Your task to perform on an android device: turn on location history Image 0: 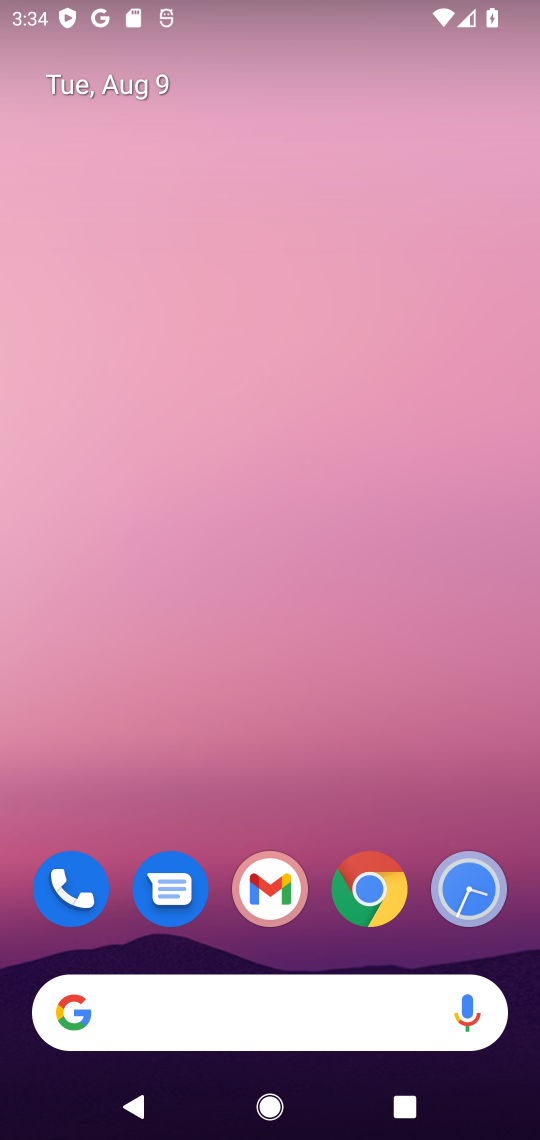
Step 0: drag from (289, 770) to (371, 0)
Your task to perform on an android device: turn on location history Image 1: 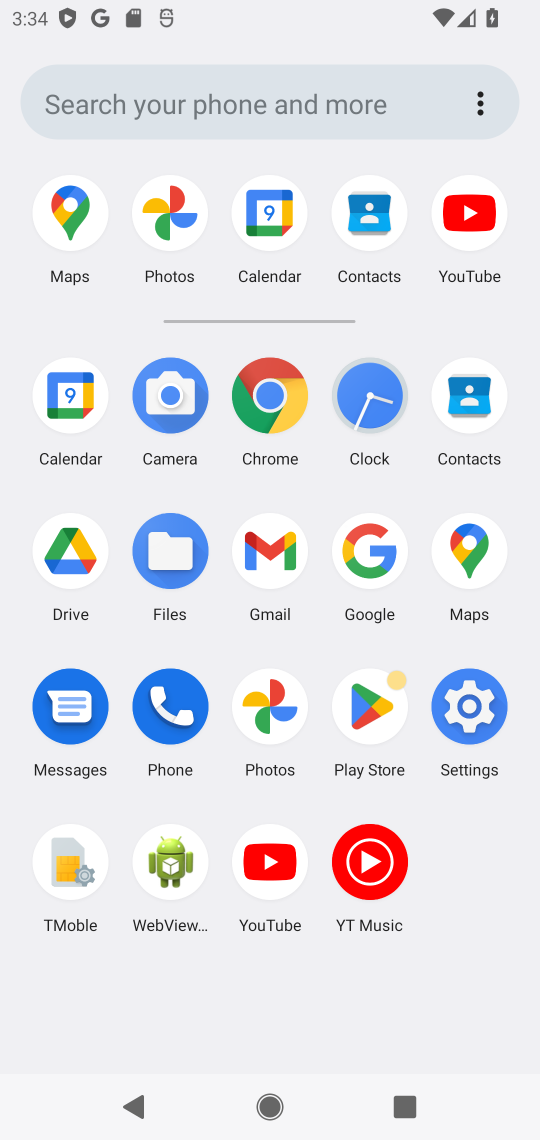
Step 1: click (465, 712)
Your task to perform on an android device: turn on location history Image 2: 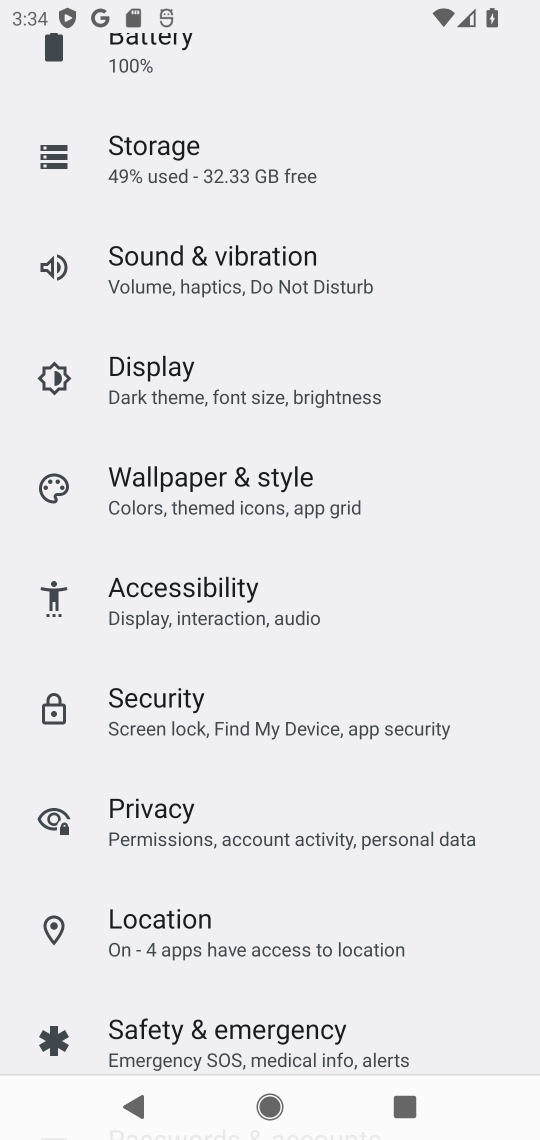
Step 2: click (285, 929)
Your task to perform on an android device: turn on location history Image 3: 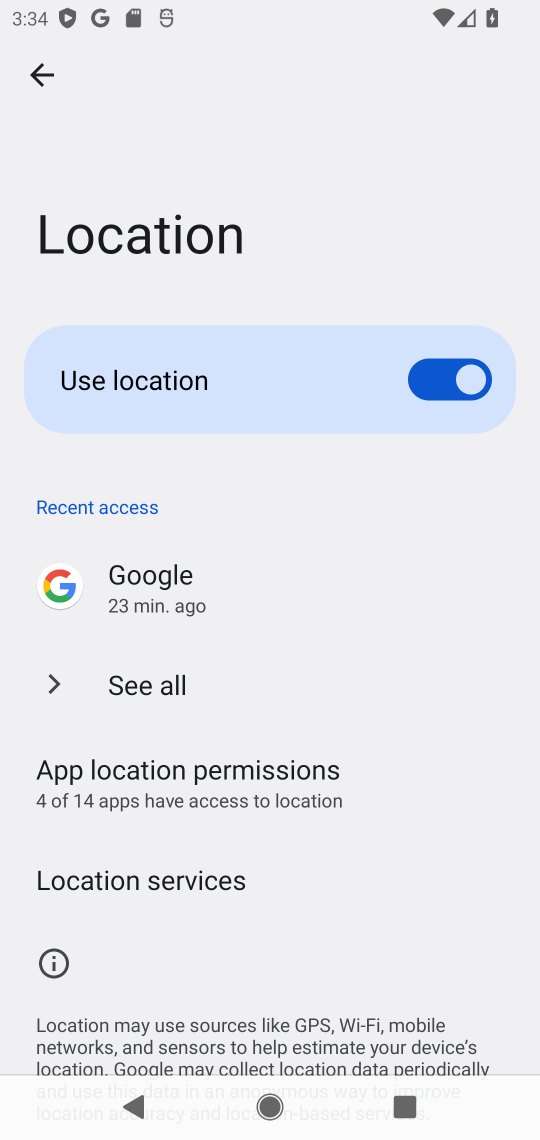
Step 3: click (231, 789)
Your task to perform on an android device: turn on location history Image 4: 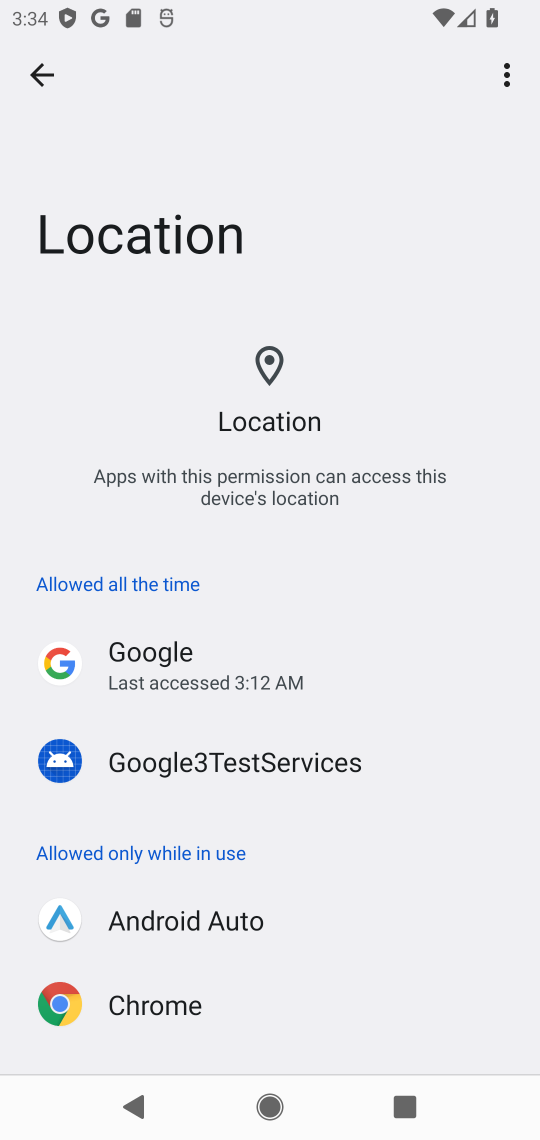
Step 4: click (38, 72)
Your task to perform on an android device: turn on location history Image 5: 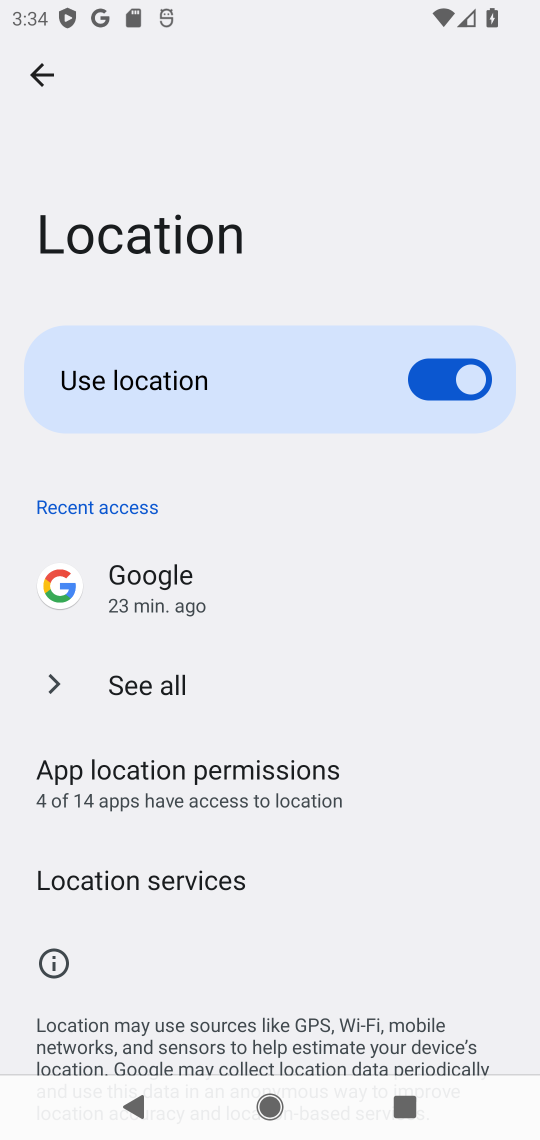
Step 5: click (209, 889)
Your task to perform on an android device: turn on location history Image 6: 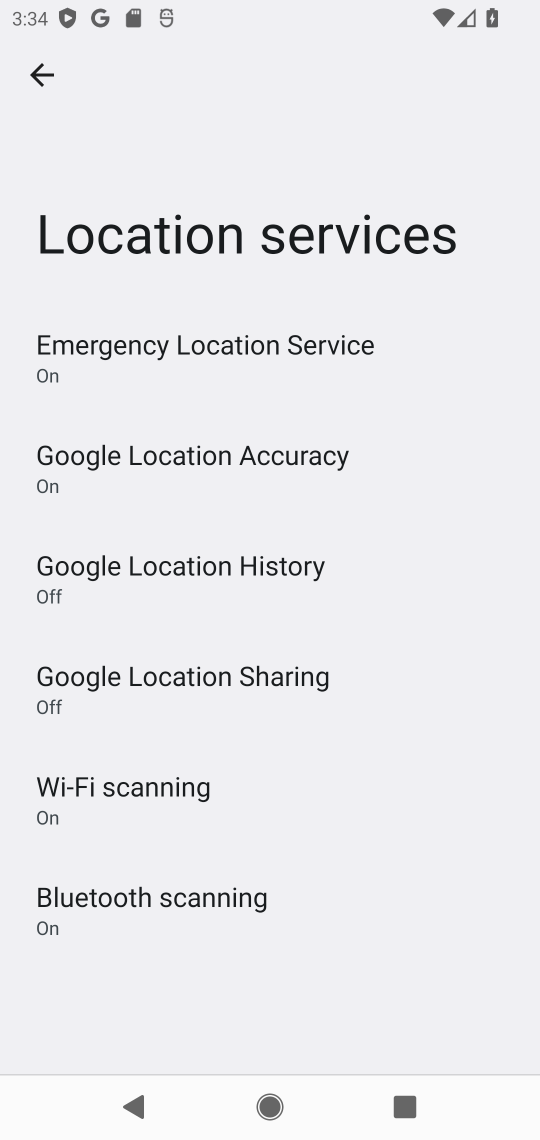
Step 6: click (298, 573)
Your task to perform on an android device: turn on location history Image 7: 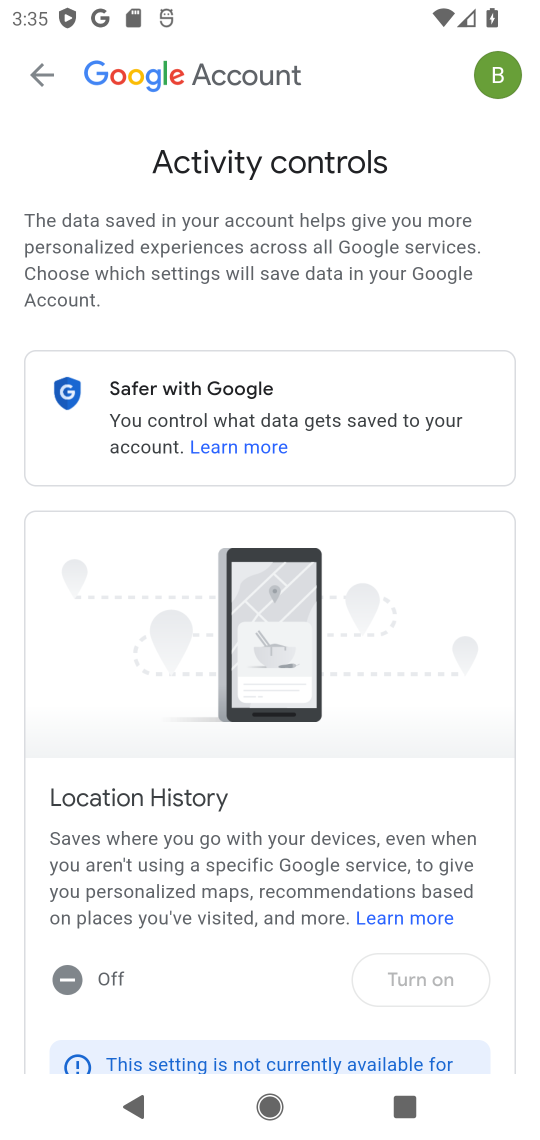
Step 7: drag from (361, 774) to (390, 591)
Your task to perform on an android device: turn on location history Image 8: 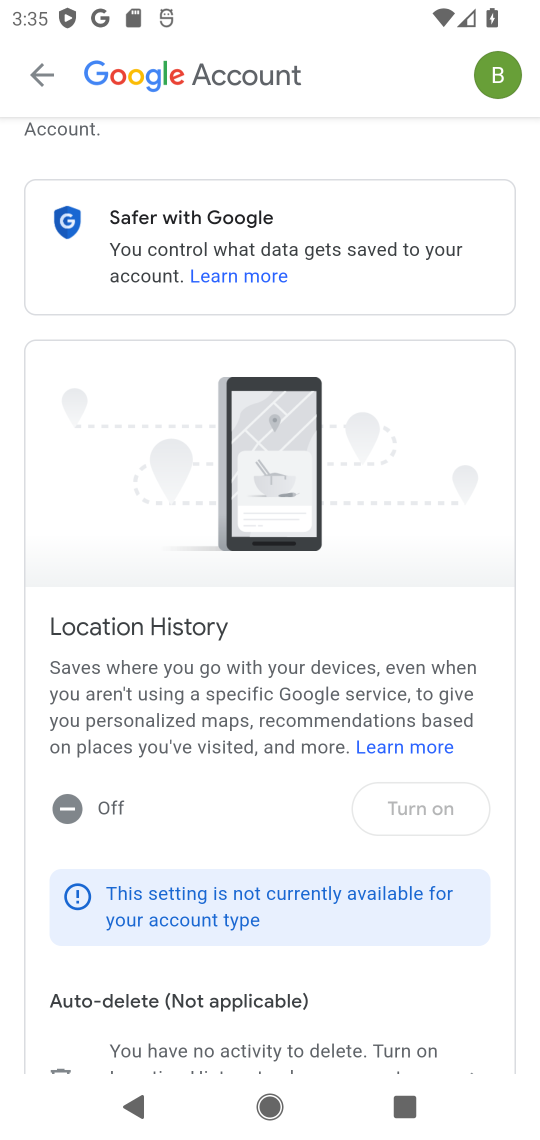
Step 8: click (443, 805)
Your task to perform on an android device: turn on location history Image 9: 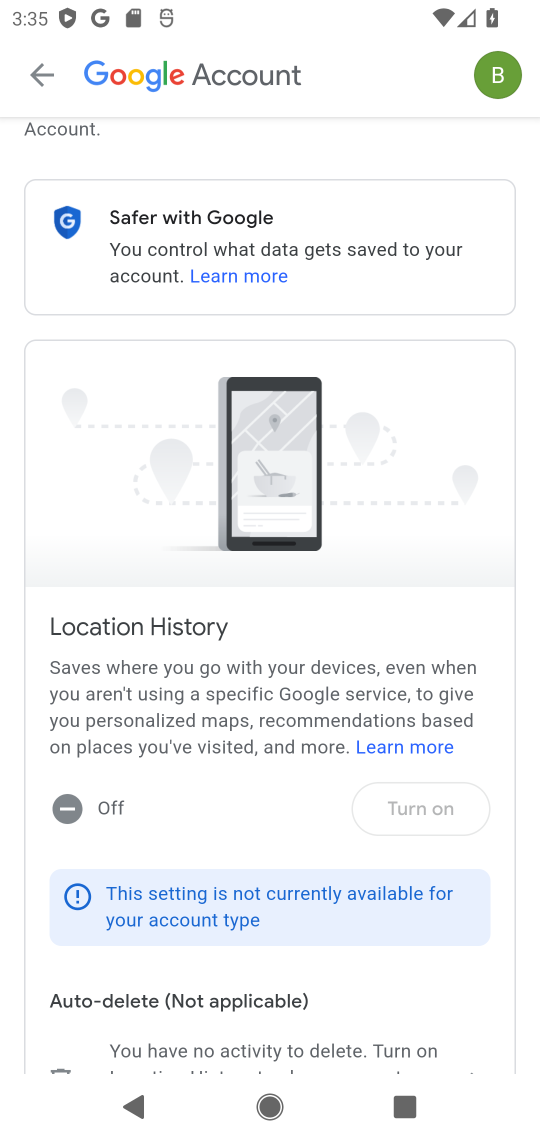
Step 9: task complete